Your task to perform on an android device: Search for "bose quietcomfort 35" on walmart.com, select the first entry, add it to the cart, then select checkout. Image 0: 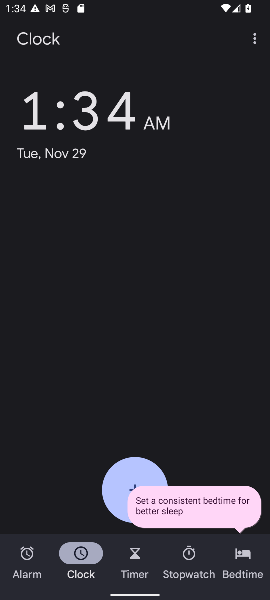
Step 0: press home button
Your task to perform on an android device: Search for "bose quietcomfort 35" on walmart.com, select the first entry, add it to the cart, then select checkout. Image 1: 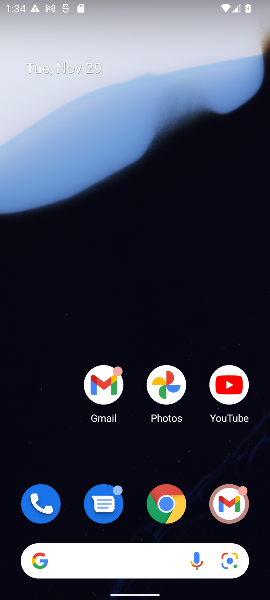
Step 1: click (164, 504)
Your task to perform on an android device: Search for "bose quietcomfort 35" on walmart.com, select the first entry, add it to the cart, then select checkout. Image 2: 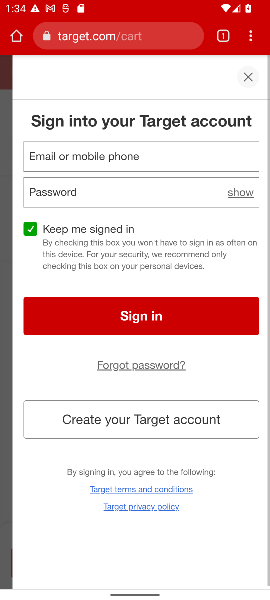
Step 2: click (98, 34)
Your task to perform on an android device: Search for "bose quietcomfort 35" on walmart.com, select the first entry, add it to the cart, then select checkout. Image 3: 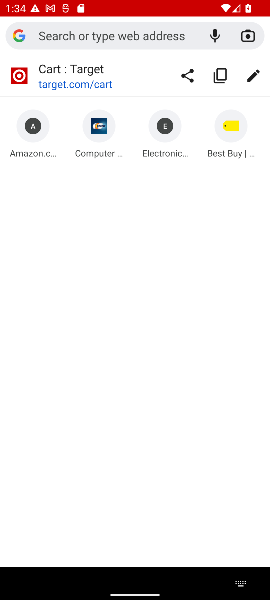
Step 3: type "walmart.com"
Your task to perform on an android device: Search for "bose quietcomfort 35" on walmart.com, select the first entry, add it to the cart, then select checkout. Image 4: 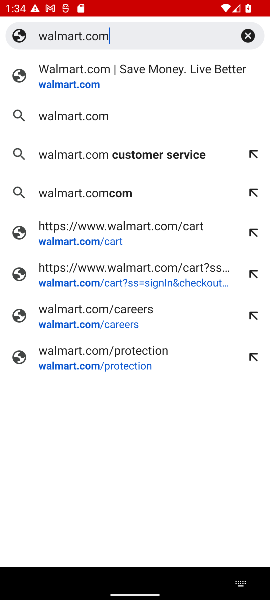
Step 4: click (64, 83)
Your task to perform on an android device: Search for "bose quietcomfort 35" on walmart.com, select the first entry, add it to the cart, then select checkout. Image 5: 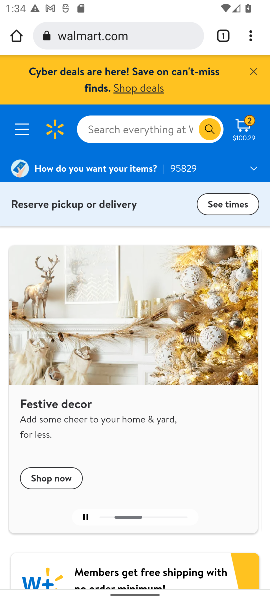
Step 5: click (111, 133)
Your task to perform on an android device: Search for "bose quietcomfort 35" on walmart.com, select the first entry, add it to the cart, then select checkout. Image 6: 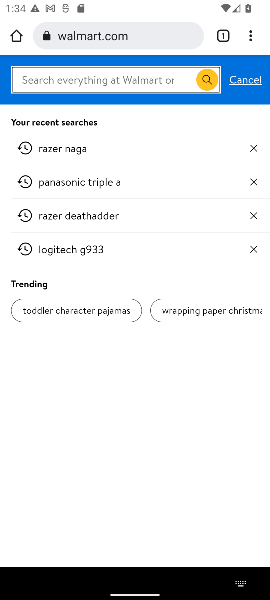
Step 6: type "bose quietcomfort 35"
Your task to perform on an android device: Search for "bose quietcomfort 35" on walmart.com, select the first entry, add it to the cart, then select checkout. Image 7: 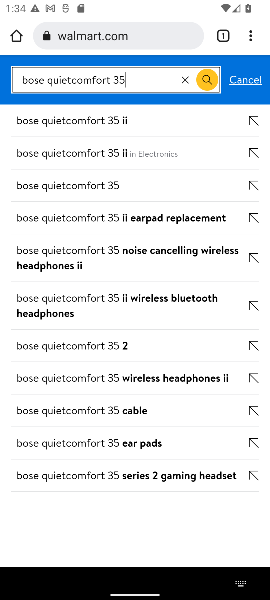
Step 7: click (108, 181)
Your task to perform on an android device: Search for "bose quietcomfort 35" on walmart.com, select the first entry, add it to the cart, then select checkout. Image 8: 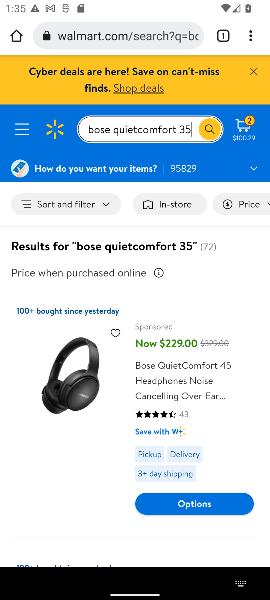
Step 8: click (143, 390)
Your task to perform on an android device: Search for "bose quietcomfort 35" on walmart.com, select the first entry, add it to the cart, then select checkout. Image 9: 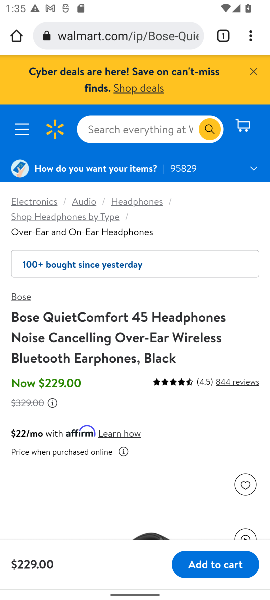
Step 9: click (208, 566)
Your task to perform on an android device: Search for "bose quietcomfort 35" on walmart.com, select the first entry, add it to the cart, then select checkout. Image 10: 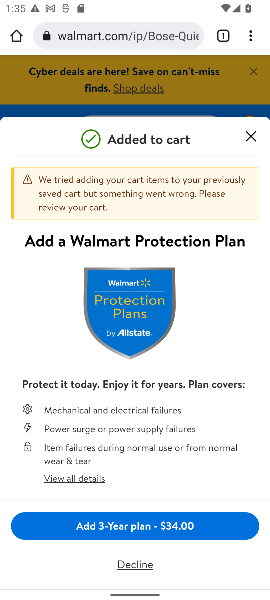
Step 10: click (246, 134)
Your task to perform on an android device: Search for "bose quietcomfort 35" on walmart.com, select the first entry, add it to the cart, then select checkout. Image 11: 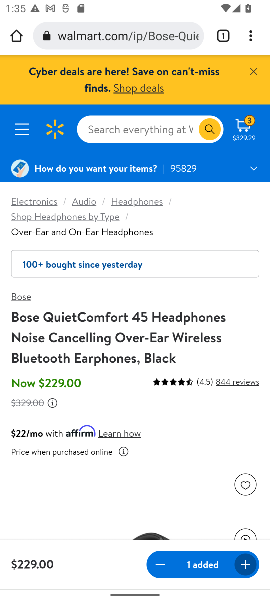
Step 11: click (244, 130)
Your task to perform on an android device: Search for "bose quietcomfort 35" on walmart.com, select the first entry, add it to the cart, then select checkout. Image 12: 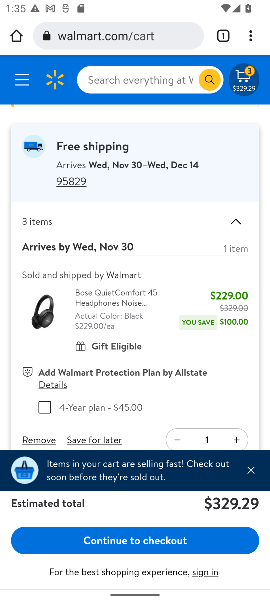
Step 12: click (144, 539)
Your task to perform on an android device: Search for "bose quietcomfort 35" on walmart.com, select the first entry, add it to the cart, then select checkout. Image 13: 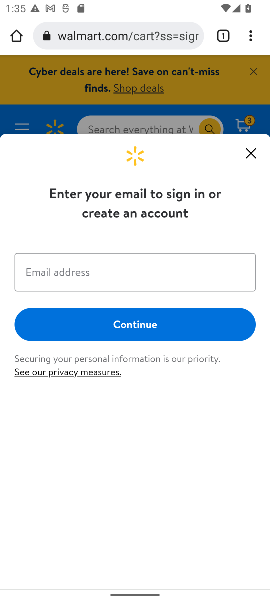
Step 13: task complete